Your task to perform on an android device: set the stopwatch Image 0: 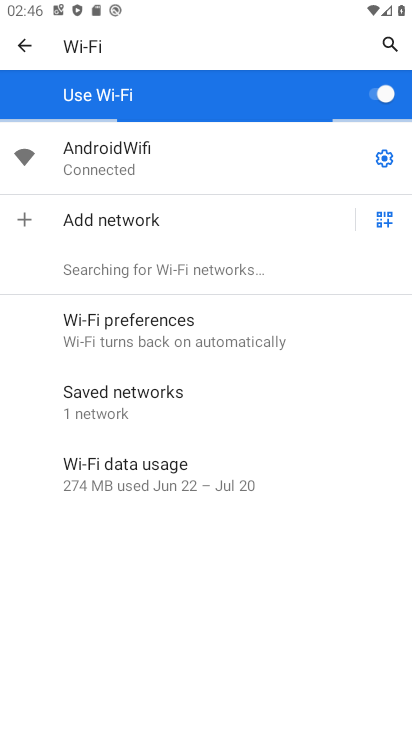
Step 0: press home button
Your task to perform on an android device: set the stopwatch Image 1: 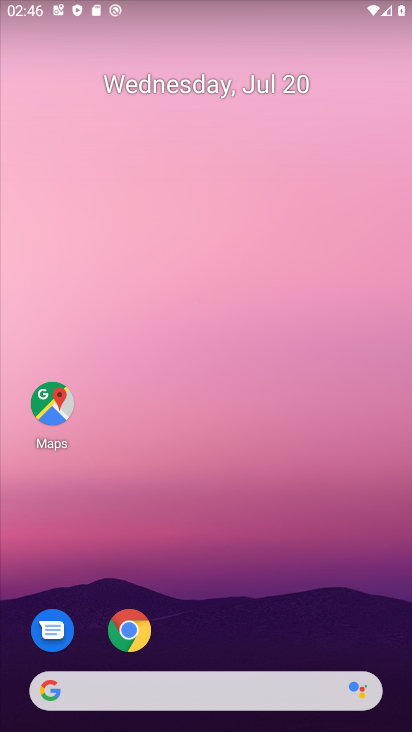
Step 1: drag from (338, 587) to (344, 99)
Your task to perform on an android device: set the stopwatch Image 2: 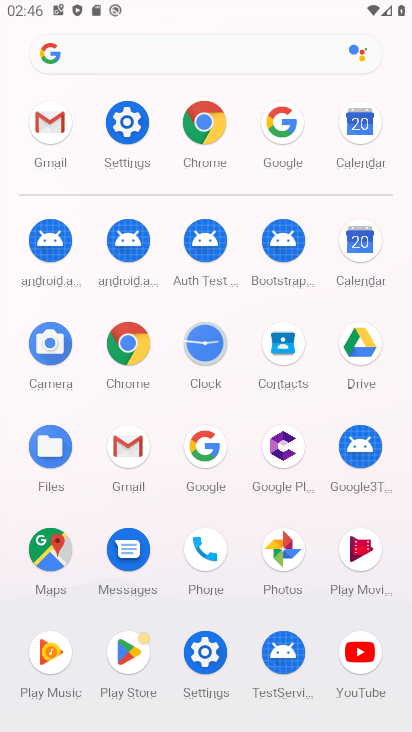
Step 2: click (200, 344)
Your task to perform on an android device: set the stopwatch Image 3: 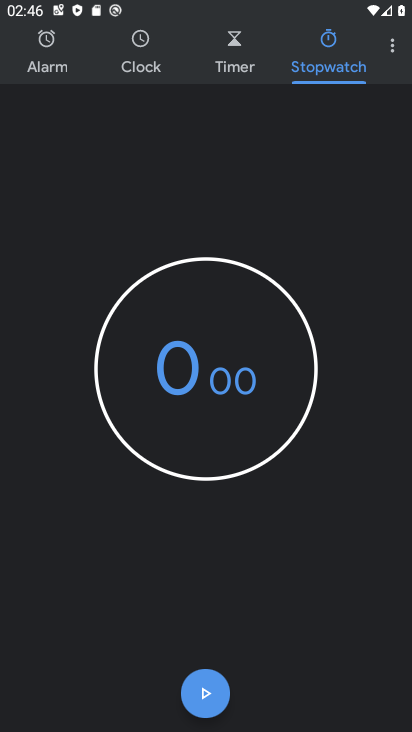
Step 3: task complete